Your task to perform on an android device: Go to Google Image 0: 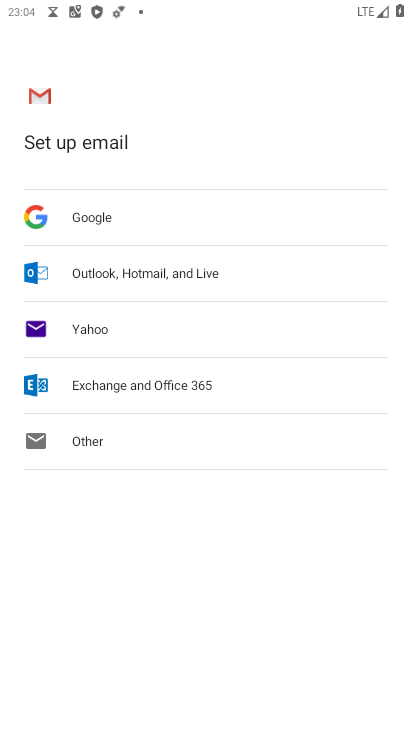
Step 0: press back button
Your task to perform on an android device: Go to Google Image 1: 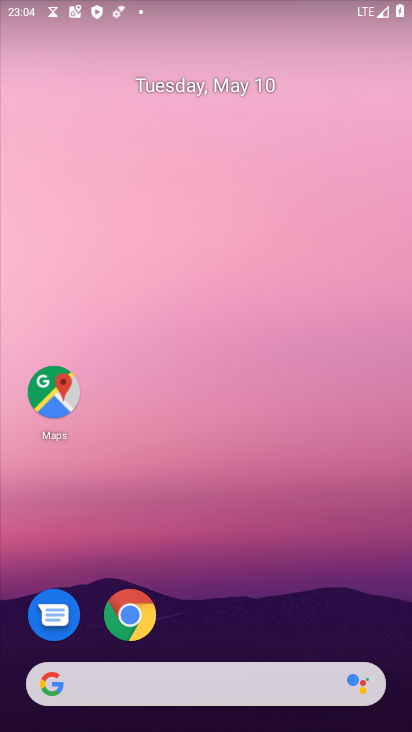
Step 1: drag from (238, 584) to (228, 126)
Your task to perform on an android device: Go to Google Image 2: 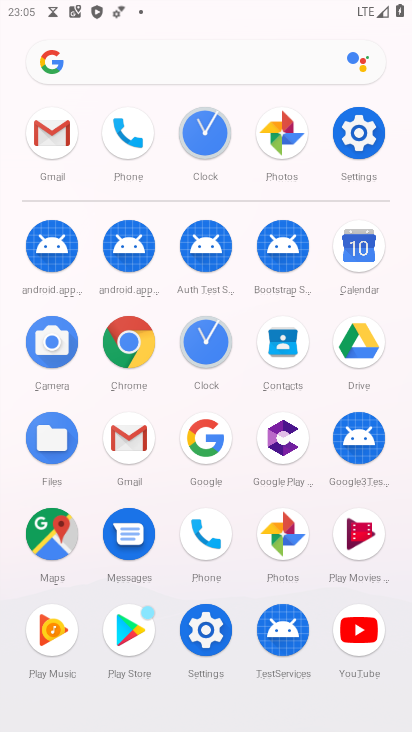
Step 2: click (203, 435)
Your task to perform on an android device: Go to Google Image 3: 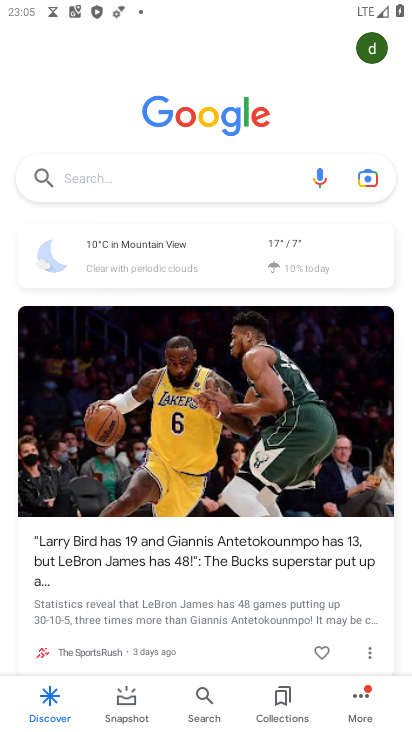
Step 3: task complete